Your task to perform on an android device: change notifications settings Image 0: 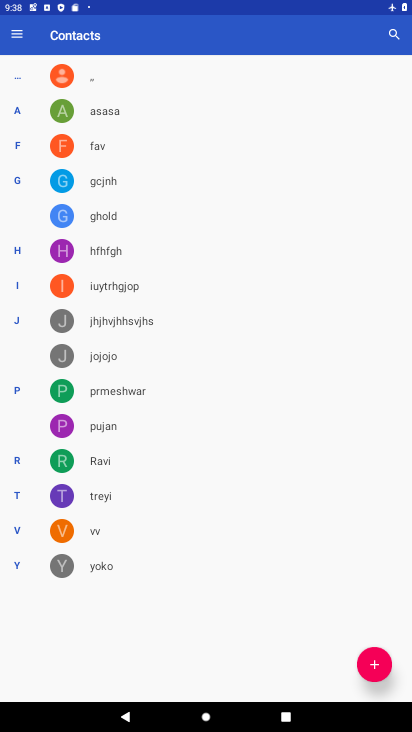
Step 0: press home button
Your task to perform on an android device: change notifications settings Image 1: 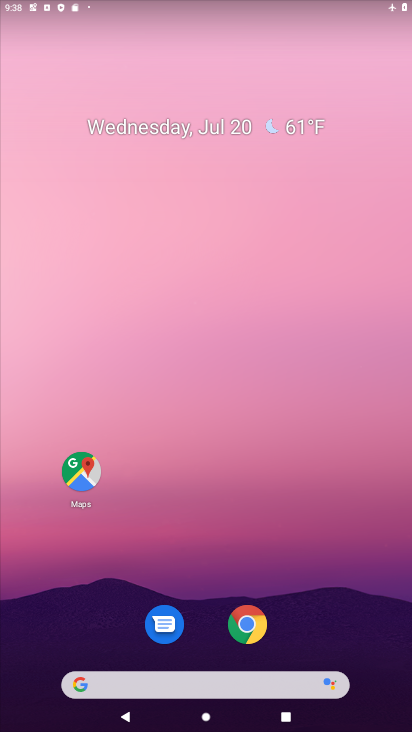
Step 1: drag from (207, 587) to (197, 129)
Your task to perform on an android device: change notifications settings Image 2: 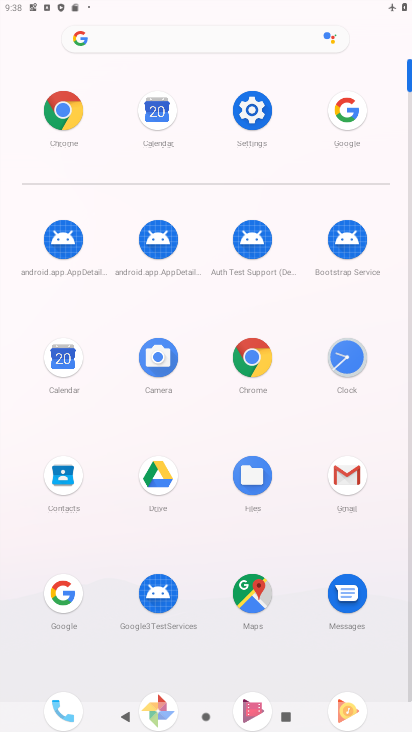
Step 2: click (248, 124)
Your task to perform on an android device: change notifications settings Image 3: 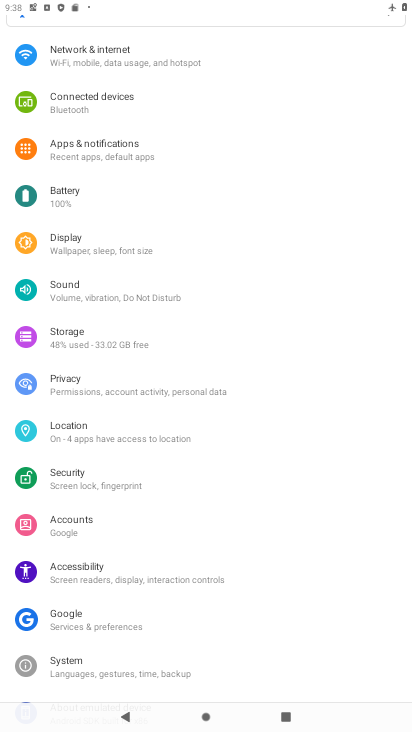
Step 3: click (110, 151)
Your task to perform on an android device: change notifications settings Image 4: 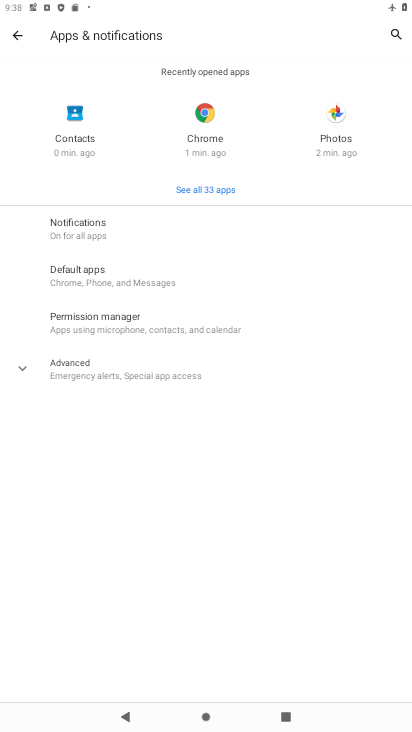
Step 4: click (93, 231)
Your task to perform on an android device: change notifications settings Image 5: 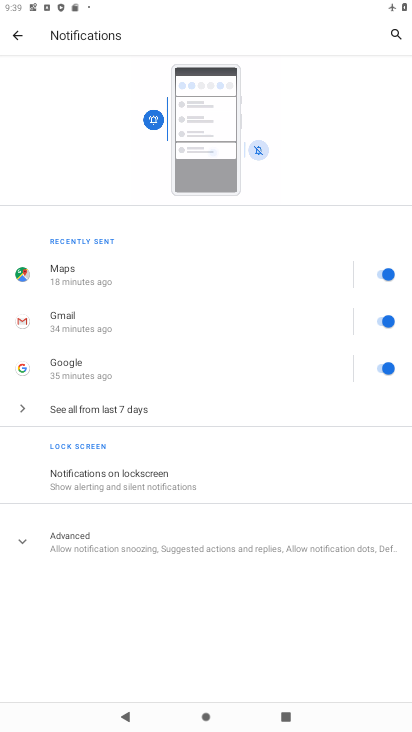
Step 5: click (189, 482)
Your task to perform on an android device: change notifications settings Image 6: 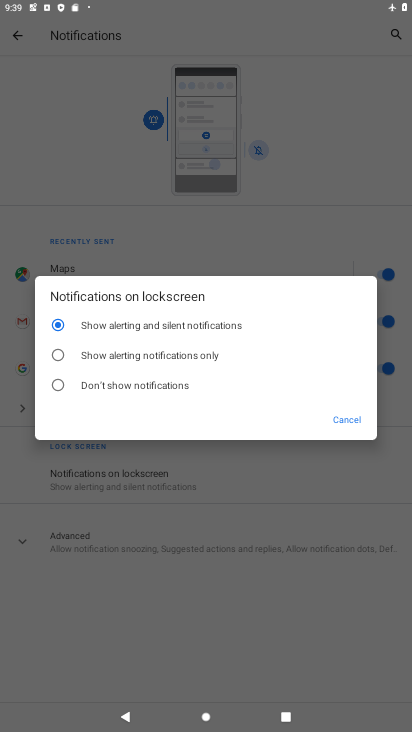
Step 6: click (196, 372)
Your task to perform on an android device: change notifications settings Image 7: 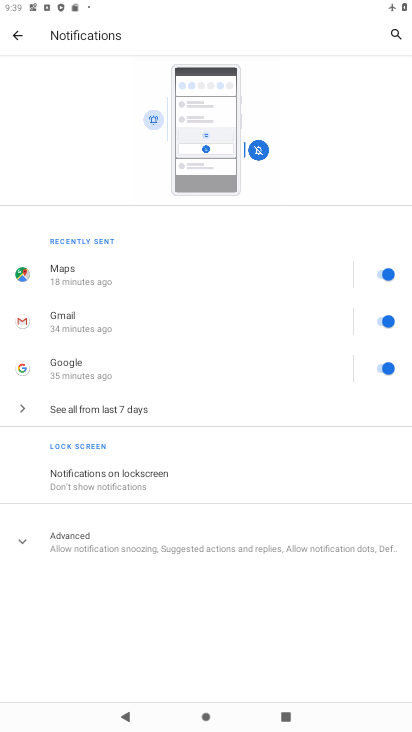
Step 7: task complete